Your task to perform on an android device: uninstall "Facebook" Image 0: 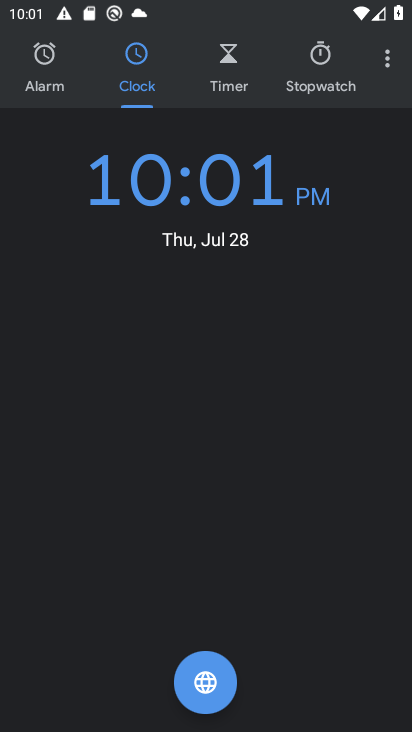
Step 0: press home button
Your task to perform on an android device: uninstall "Facebook" Image 1: 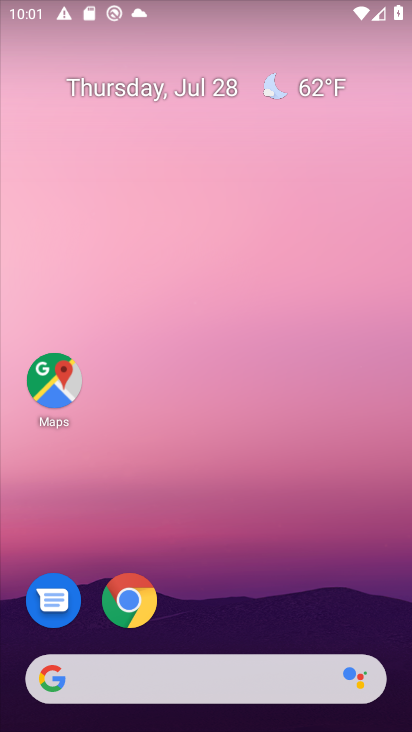
Step 1: task complete